Your task to perform on an android device: choose inbox layout in the gmail app Image 0: 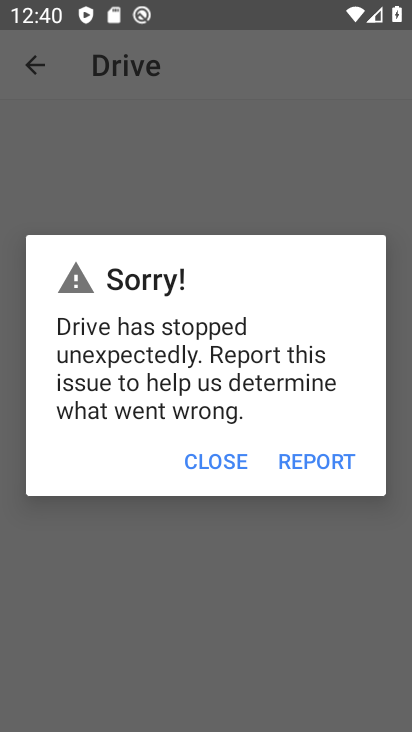
Step 0: press back button
Your task to perform on an android device: choose inbox layout in the gmail app Image 1: 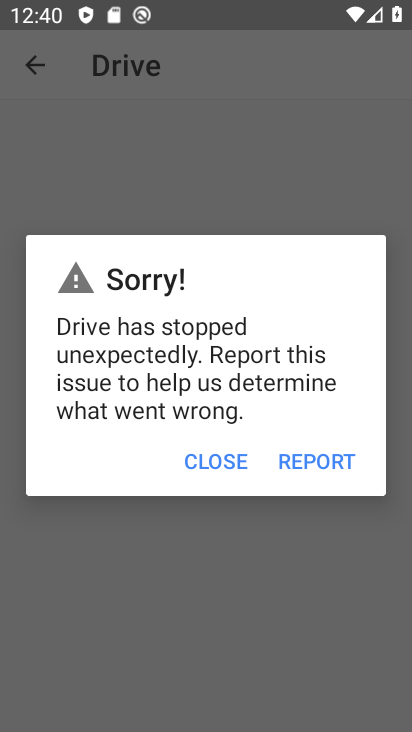
Step 1: press back button
Your task to perform on an android device: choose inbox layout in the gmail app Image 2: 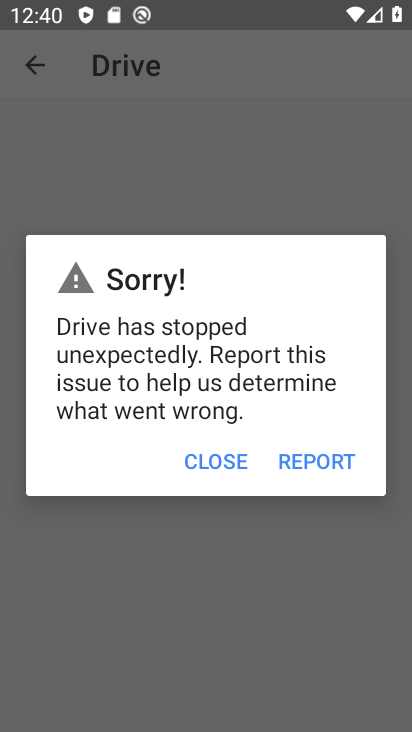
Step 2: press home button
Your task to perform on an android device: choose inbox layout in the gmail app Image 3: 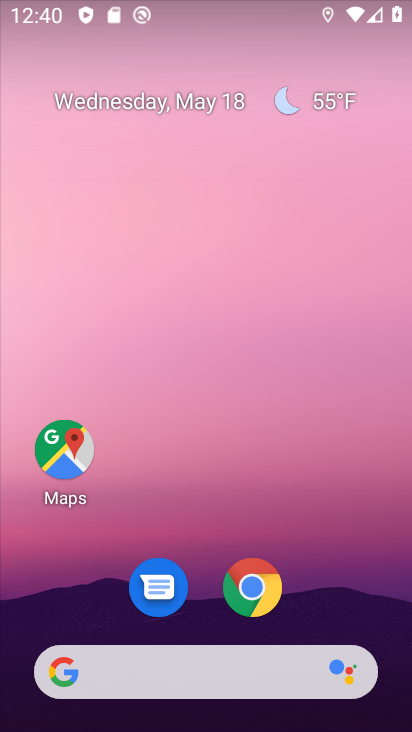
Step 3: drag from (198, 628) to (232, 173)
Your task to perform on an android device: choose inbox layout in the gmail app Image 4: 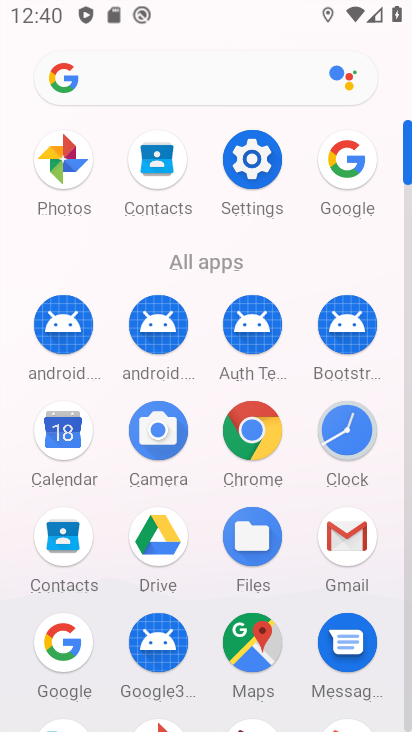
Step 4: click (338, 530)
Your task to perform on an android device: choose inbox layout in the gmail app Image 5: 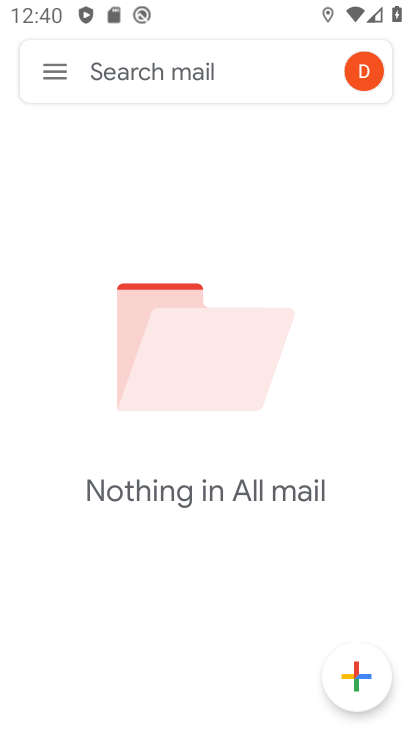
Step 5: click (54, 73)
Your task to perform on an android device: choose inbox layout in the gmail app Image 6: 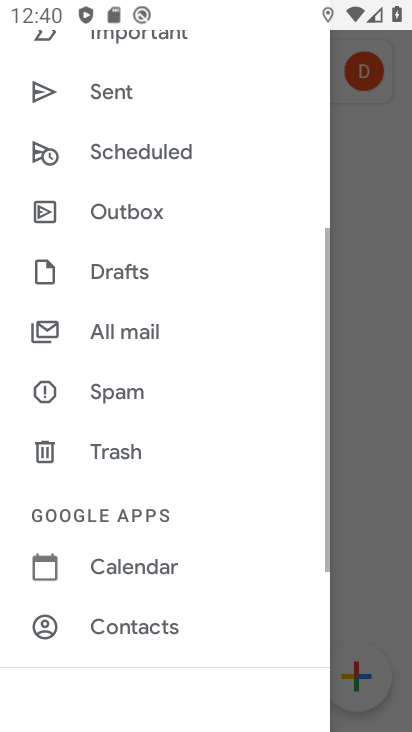
Step 6: drag from (125, 586) to (221, 123)
Your task to perform on an android device: choose inbox layout in the gmail app Image 7: 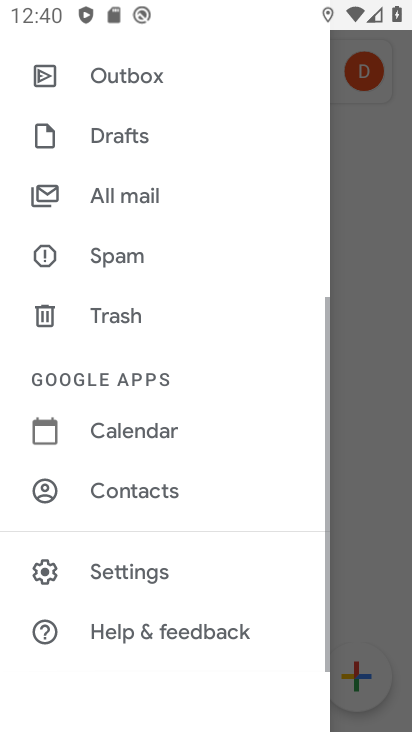
Step 7: click (148, 566)
Your task to perform on an android device: choose inbox layout in the gmail app Image 8: 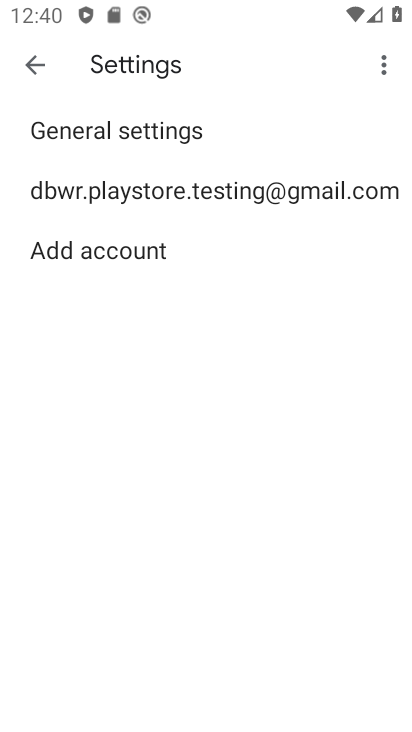
Step 8: click (83, 179)
Your task to perform on an android device: choose inbox layout in the gmail app Image 9: 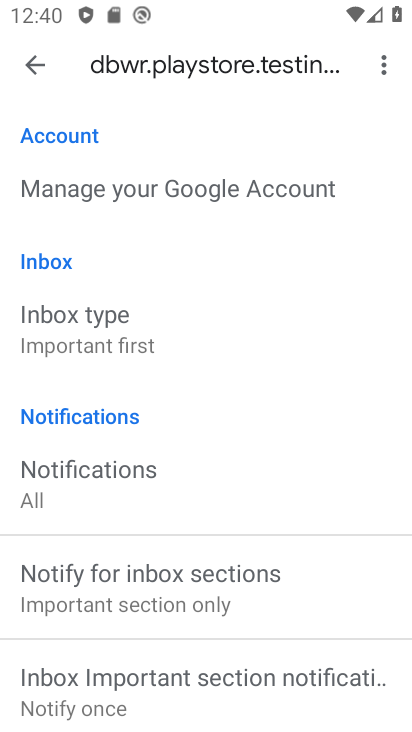
Step 9: click (84, 322)
Your task to perform on an android device: choose inbox layout in the gmail app Image 10: 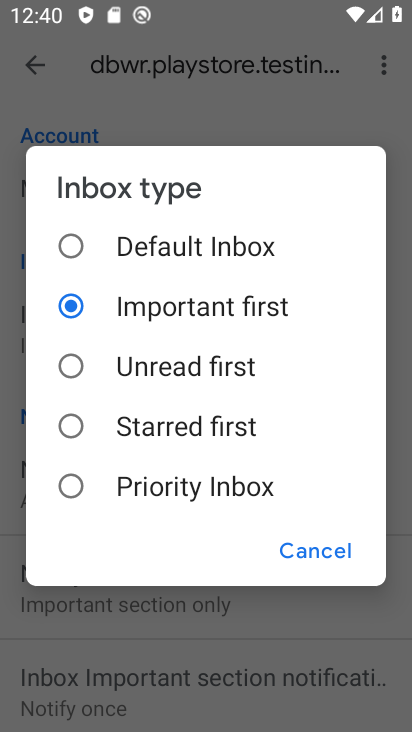
Step 10: click (72, 263)
Your task to perform on an android device: choose inbox layout in the gmail app Image 11: 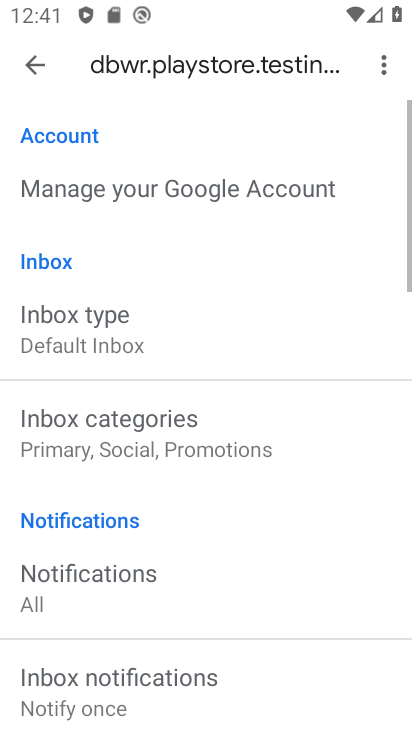
Step 11: task complete